Your task to perform on an android device: delete browsing data in the chrome app Image 0: 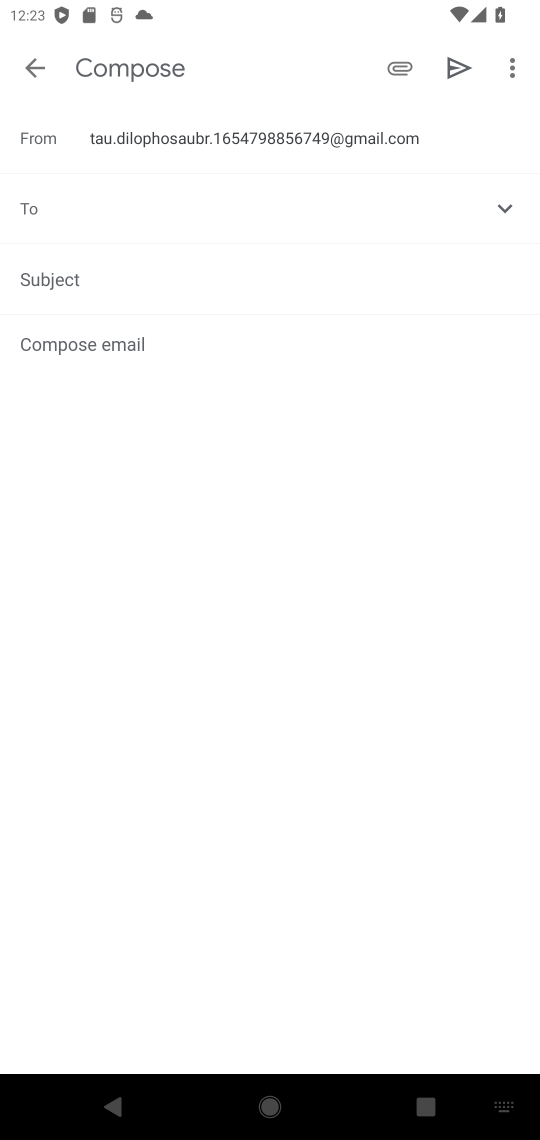
Step 0: press home button
Your task to perform on an android device: delete browsing data in the chrome app Image 1: 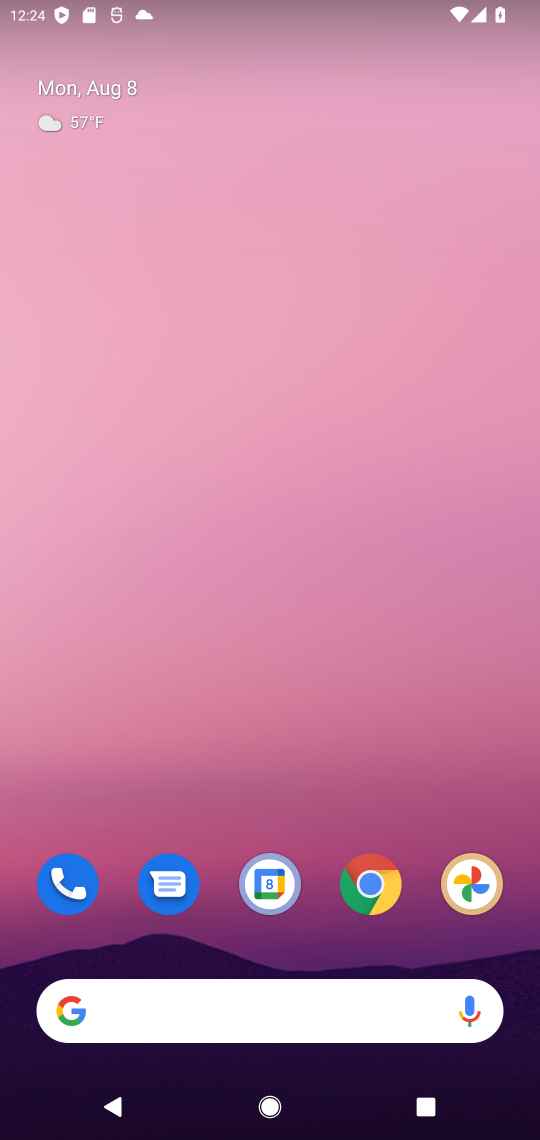
Step 1: click (376, 869)
Your task to perform on an android device: delete browsing data in the chrome app Image 2: 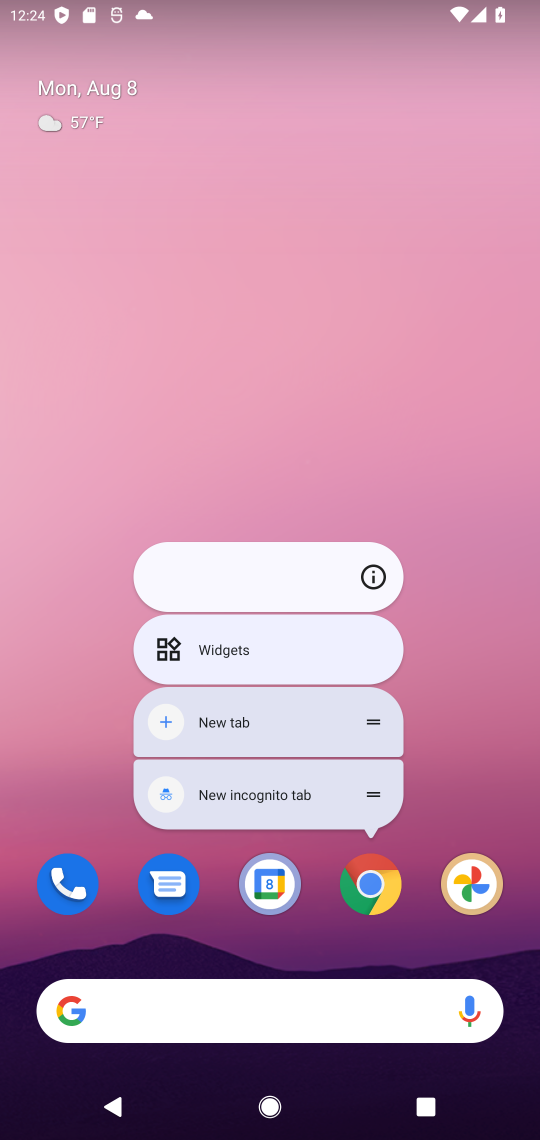
Step 2: click (375, 894)
Your task to perform on an android device: delete browsing data in the chrome app Image 3: 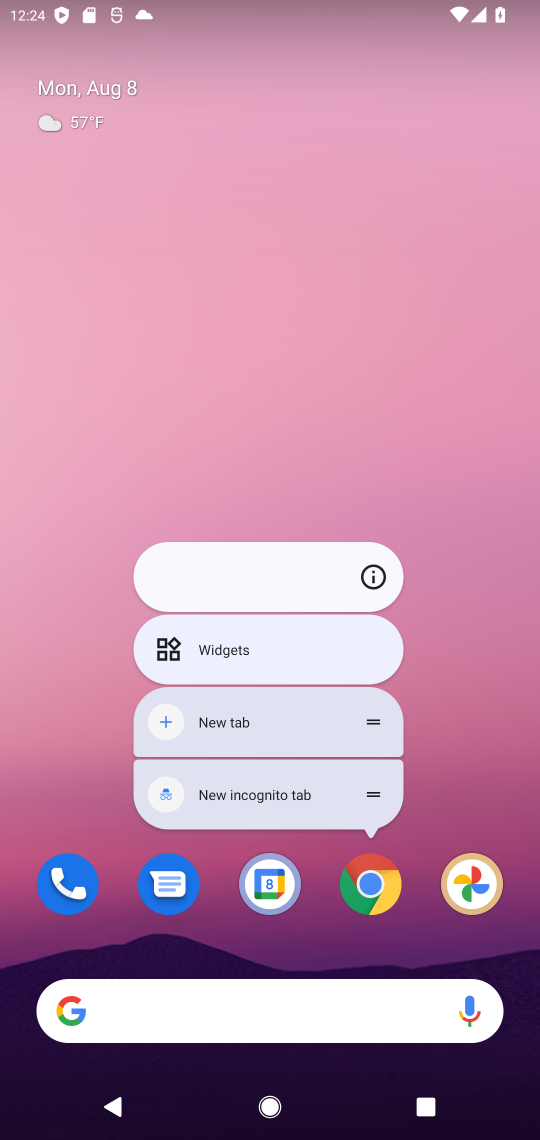
Step 3: click (375, 894)
Your task to perform on an android device: delete browsing data in the chrome app Image 4: 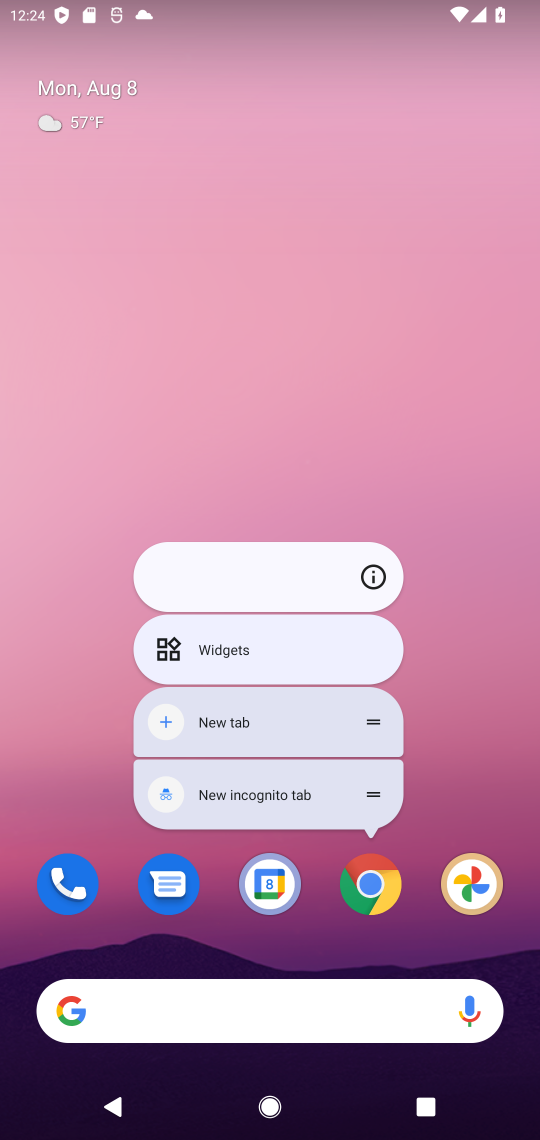
Step 4: click (375, 894)
Your task to perform on an android device: delete browsing data in the chrome app Image 5: 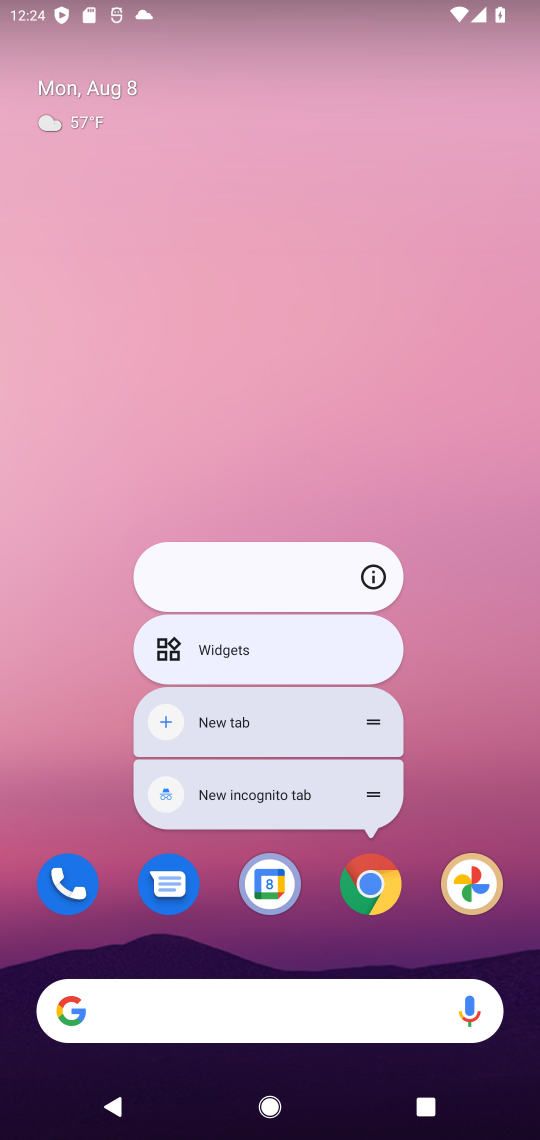
Step 5: click (375, 894)
Your task to perform on an android device: delete browsing data in the chrome app Image 6: 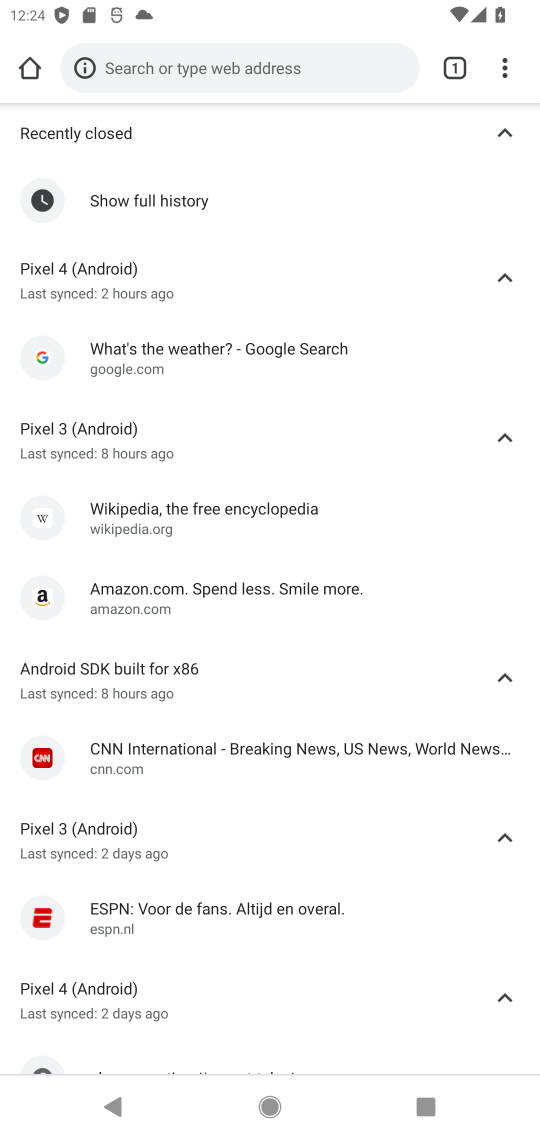
Step 6: click (501, 65)
Your task to perform on an android device: delete browsing data in the chrome app Image 7: 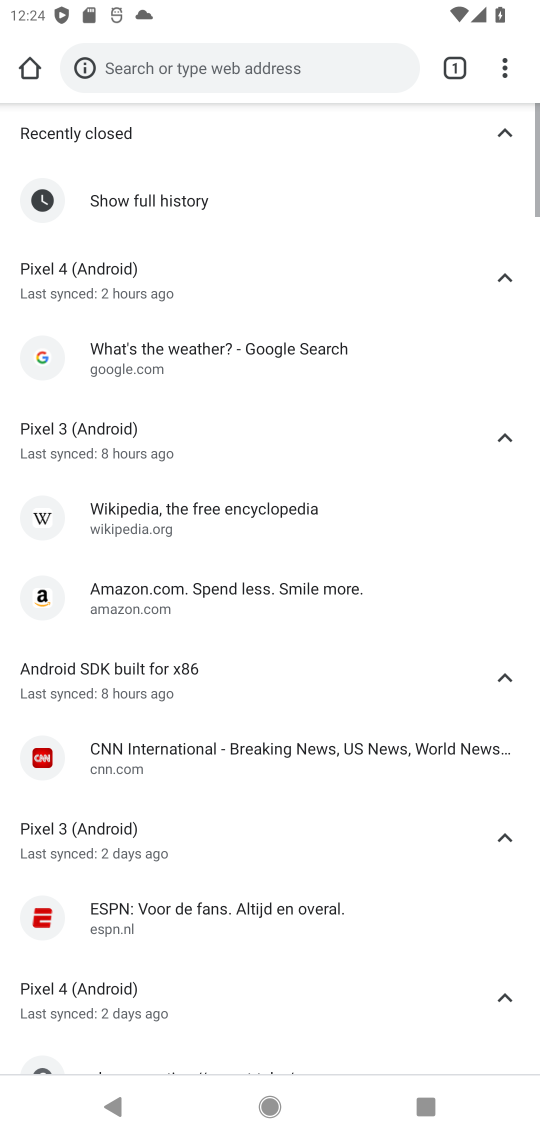
Step 7: click (510, 83)
Your task to perform on an android device: delete browsing data in the chrome app Image 8: 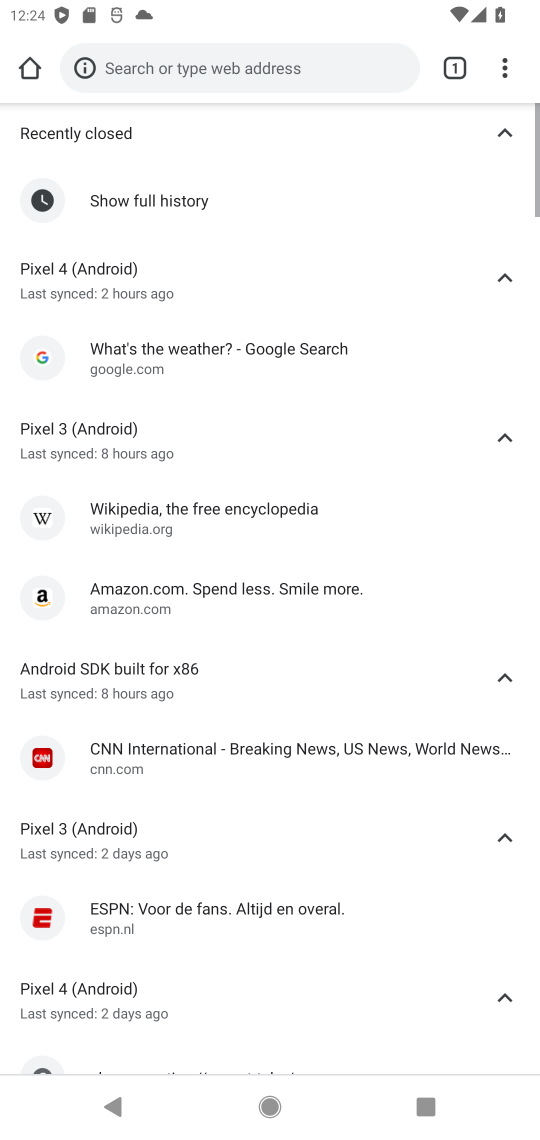
Step 8: click (498, 40)
Your task to perform on an android device: delete browsing data in the chrome app Image 9: 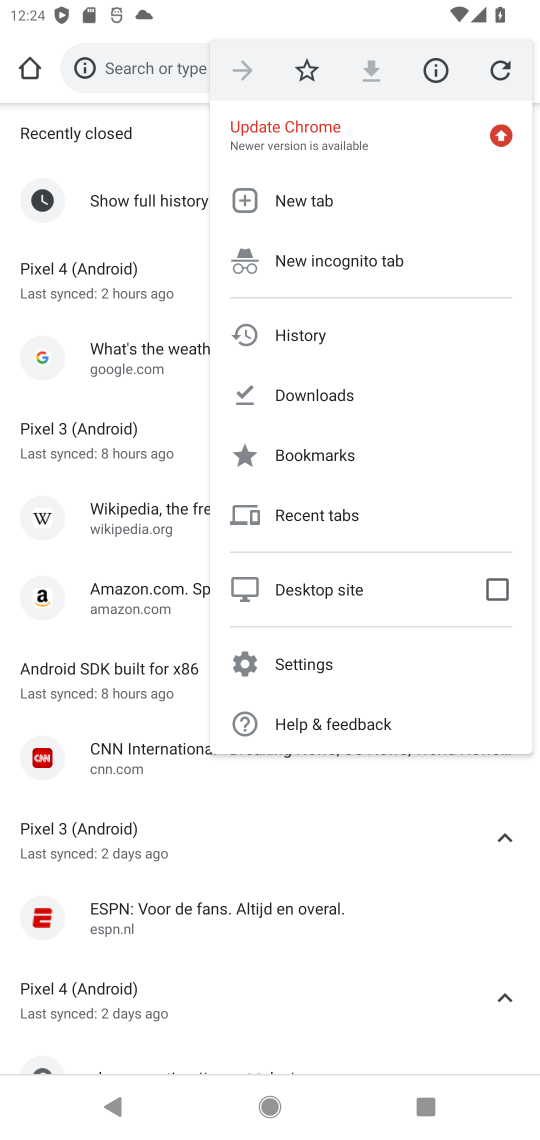
Step 9: click (336, 332)
Your task to perform on an android device: delete browsing data in the chrome app Image 10: 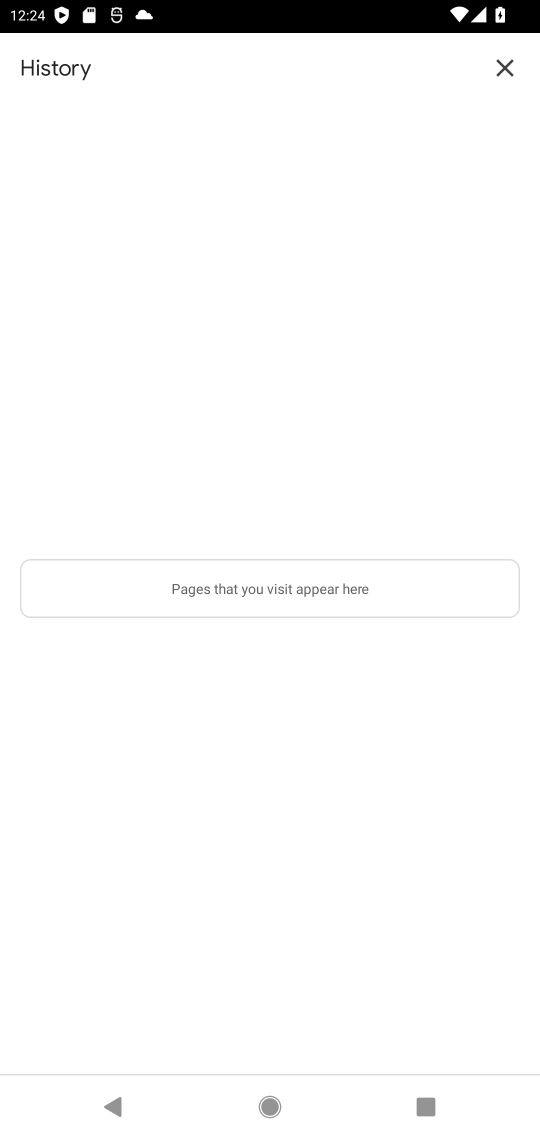
Step 10: task complete